Your task to perform on an android device: Go to Android settings Image 0: 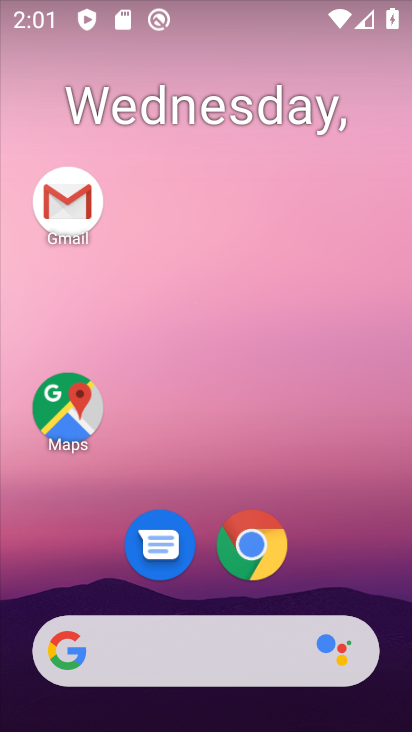
Step 0: drag from (354, 563) to (301, 128)
Your task to perform on an android device: Go to Android settings Image 1: 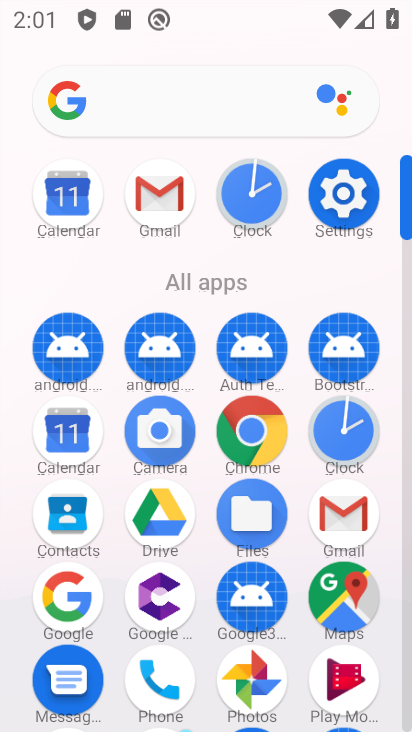
Step 1: drag from (344, 200) to (202, 222)
Your task to perform on an android device: Go to Android settings Image 2: 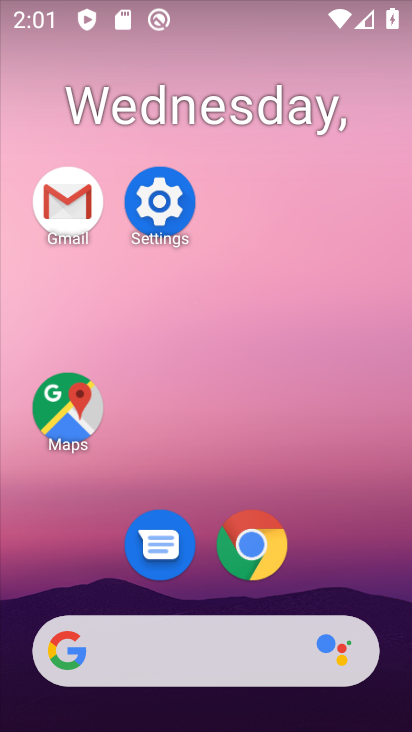
Step 2: click (175, 207)
Your task to perform on an android device: Go to Android settings Image 3: 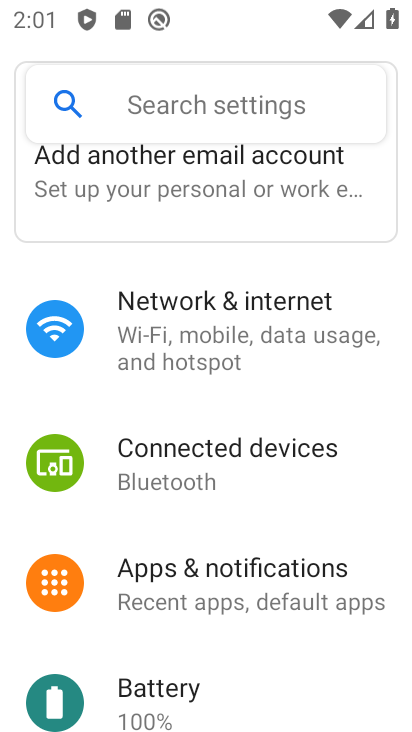
Step 3: task complete